Your task to perform on an android device: turn on showing notifications on the lock screen Image 0: 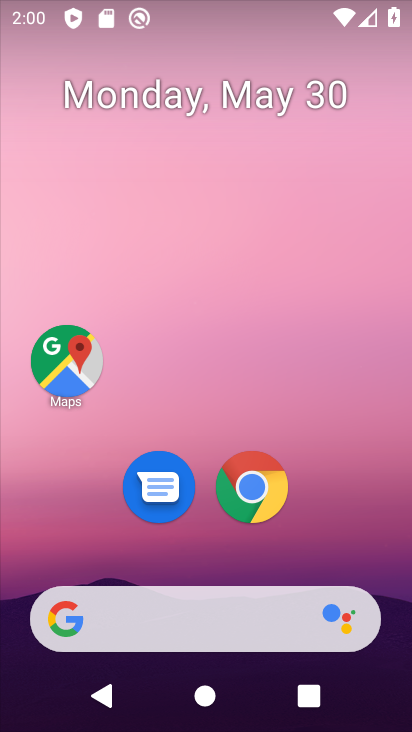
Step 0: drag from (215, 32) to (245, 6)
Your task to perform on an android device: turn on showing notifications on the lock screen Image 1: 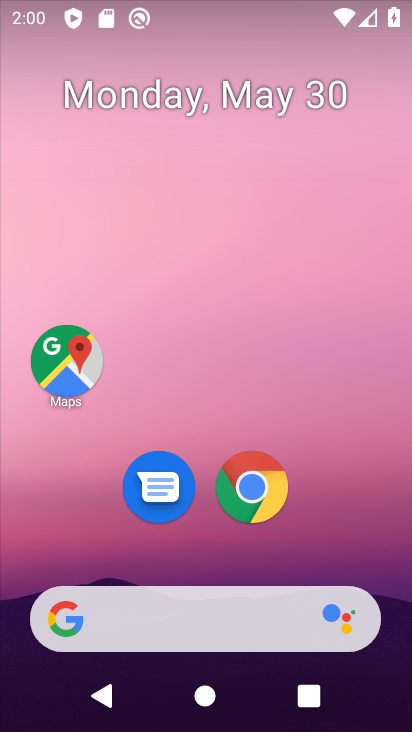
Step 1: drag from (189, 542) to (229, 68)
Your task to perform on an android device: turn on showing notifications on the lock screen Image 2: 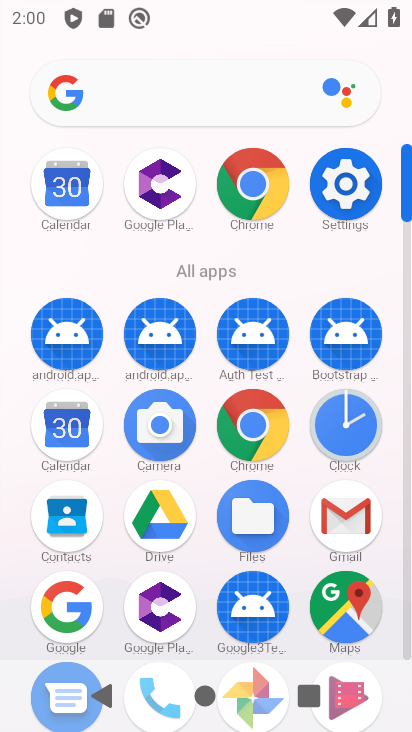
Step 2: click (348, 189)
Your task to perform on an android device: turn on showing notifications on the lock screen Image 3: 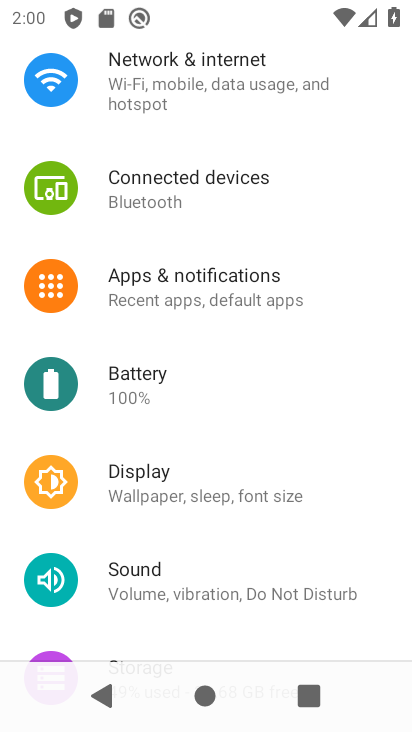
Step 3: click (151, 292)
Your task to perform on an android device: turn on showing notifications on the lock screen Image 4: 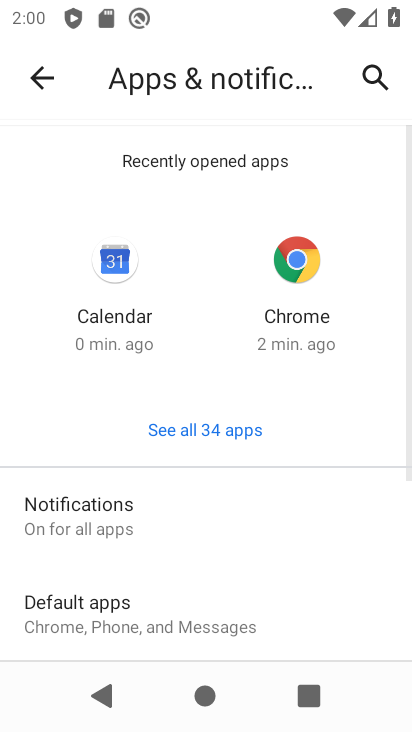
Step 4: click (41, 525)
Your task to perform on an android device: turn on showing notifications on the lock screen Image 5: 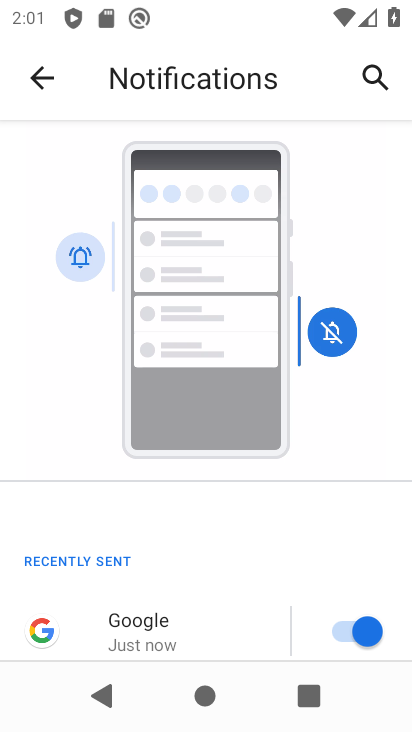
Step 5: drag from (203, 622) to (167, 129)
Your task to perform on an android device: turn on showing notifications on the lock screen Image 6: 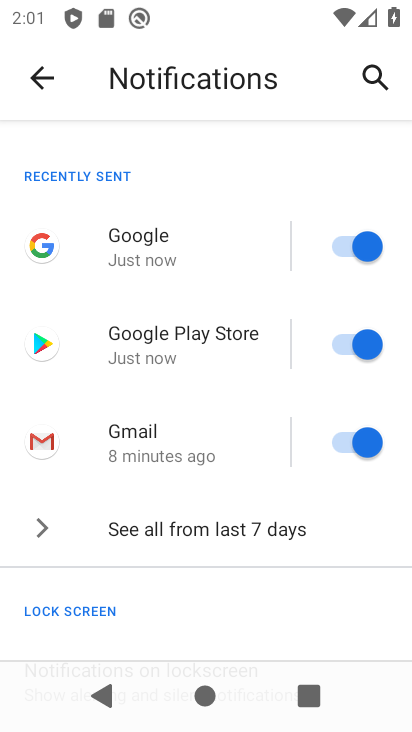
Step 6: drag from (156, 588) to (230, 272)
Your task to perform on an android device: turn on showing notifications on the lock screen Image 7: 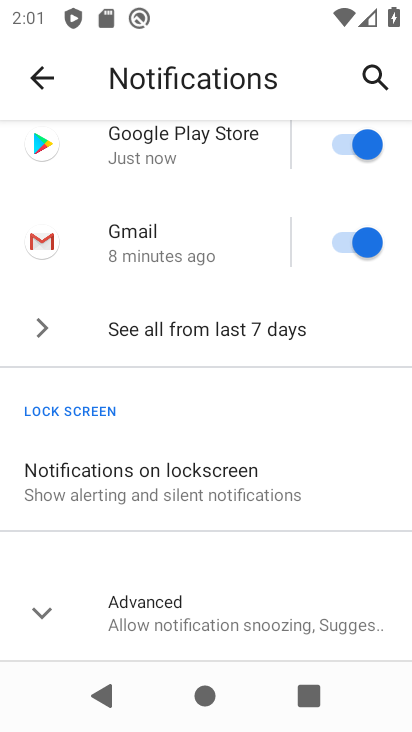
Step 7: click (110, 481)
Your task to perform on an android device: turn on showing notifications on the lock screen Image 8: 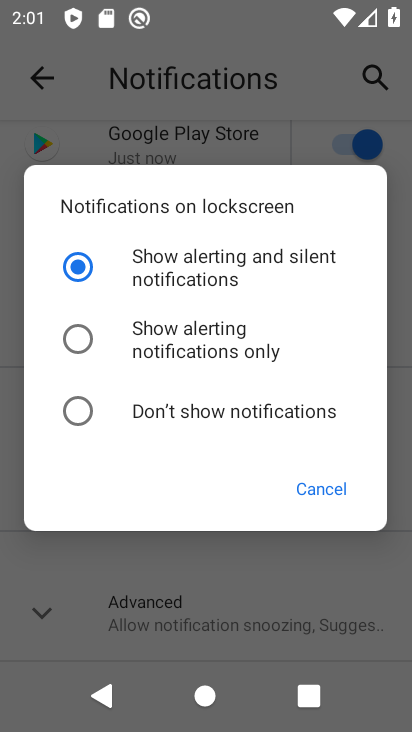
Step 8: click (78, 427)
Your task to perform on an android device: turn on showing notifications on the lock screen Image 9: 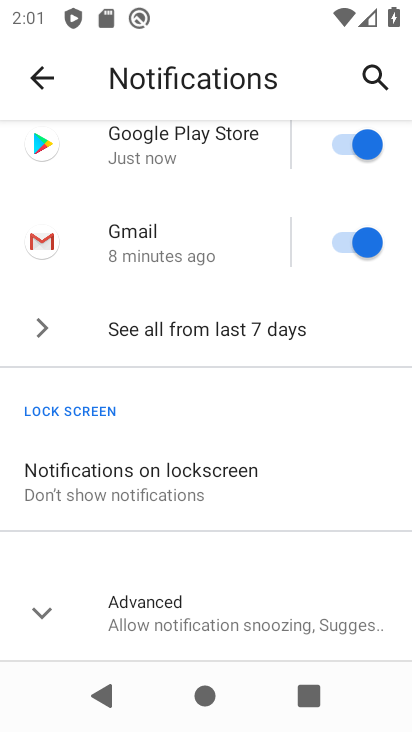
Step 9: task complete